Your task to perform on an android device: open a new tab in the chrome app Image 0: 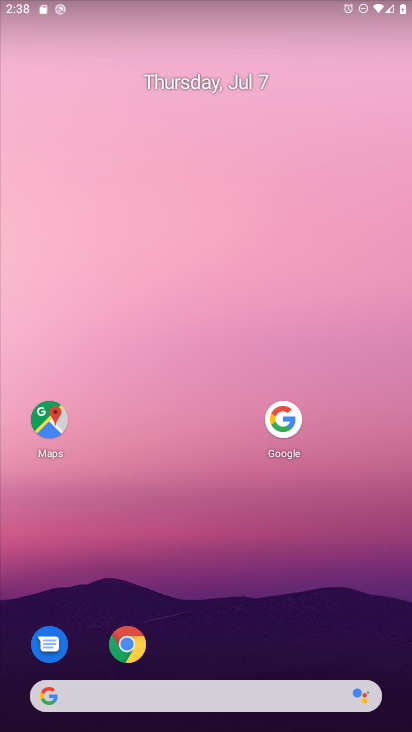
Step 0: click (131, 642)
Your task to perform on an android device: open a new tab in the chrome app Image 1: 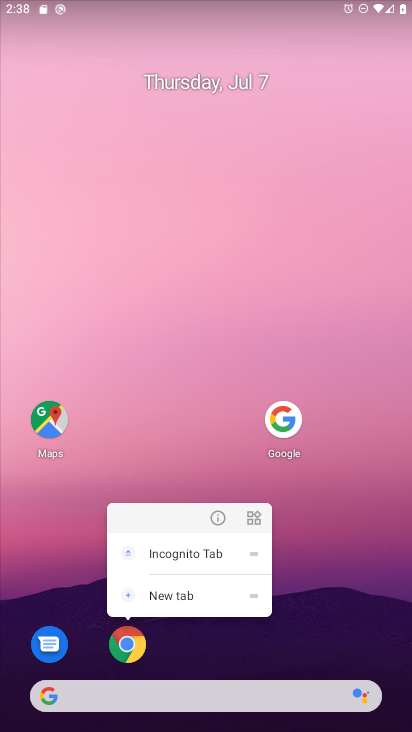
Step 1: click (121, 652)
Your task to perform on an android device: open a new tab in the chrome app Image 2: 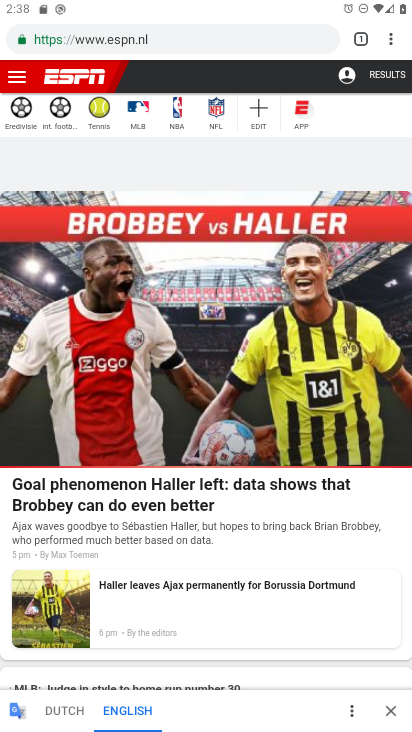
Step 2: task complete